Your task to perform on an android device: Set the phone to "Do not disturb". Image 0: 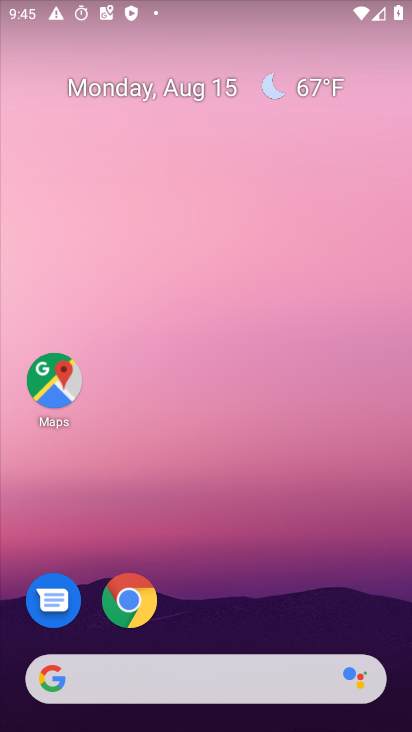
Step 0: drag from (227, 640) to (209, 83)
Your task to perform on an android device: Set the phone to "Do not disturb". Image 1: 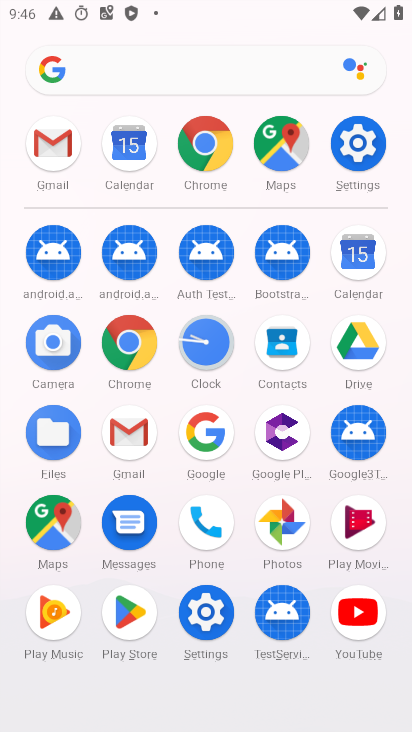
Step 1: click (207, 612)
Your task to perform on an android device: Set the phone to "Do not disturb". Image 2: 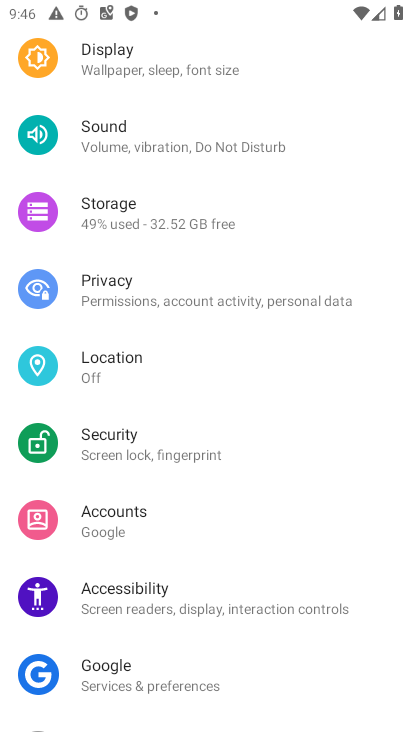
Step 2: drag from (155, 149) to (154, 375)
Your task to perform on an android device: Set the phone to "Do not disturb". Image 3: 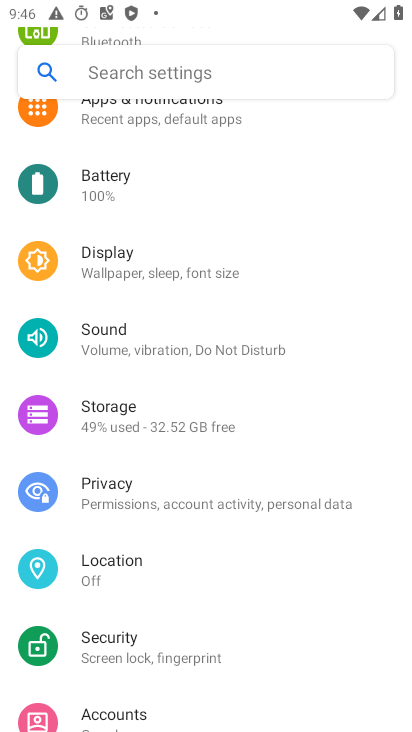
Step 3: click (118, 339)
Your task to perform on an android device: Set the phone to "Do not disturb". Image 4: 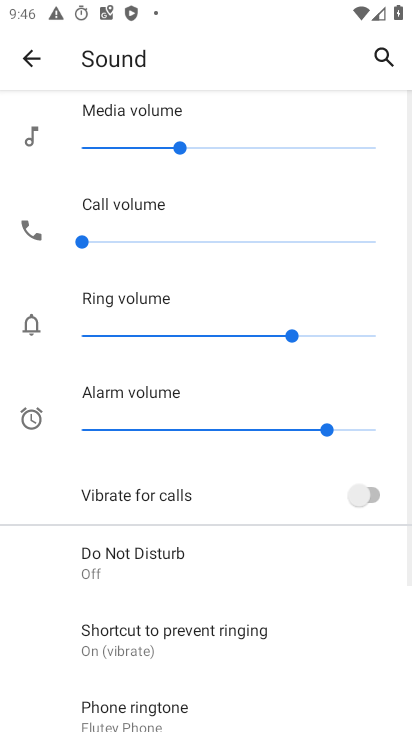
Step 4: click (117, 554)
Your task to perform on an android device: Set the phone to "Do not disturb". Image 5: 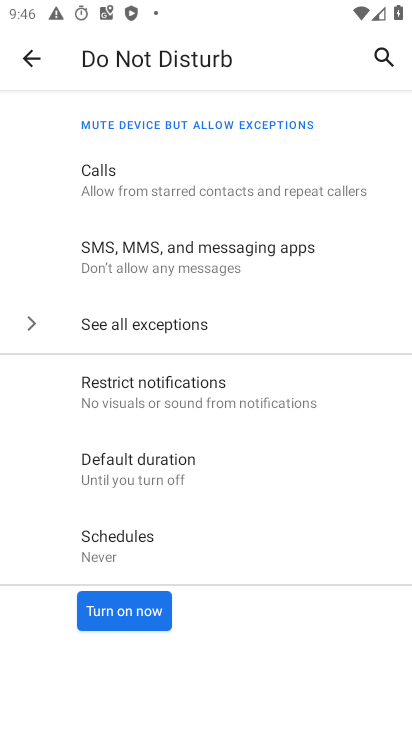
Step 5: click (132, 612)
Your task to perform on an android device: Set the phone to "Do not disturb". Image 6: 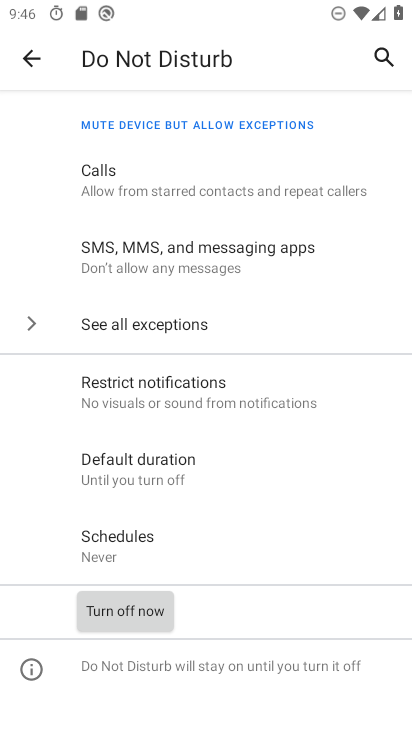
Step 6: task complete